Your task to perform on an android device: Go to Google Image 0: 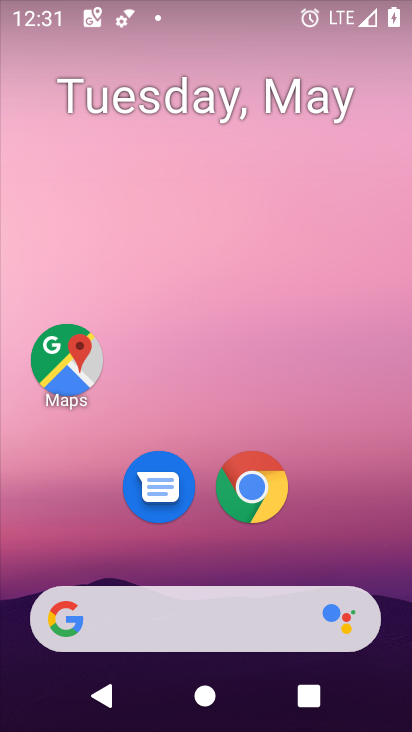
Step 0: press home button
Your task to perform on an android device: Go to Google Image 1: 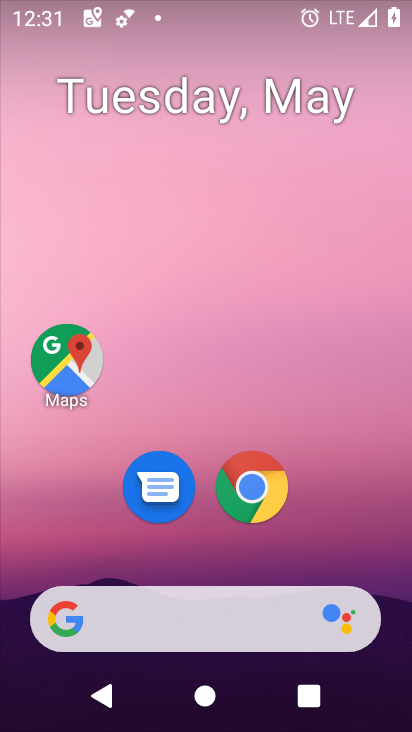
Step 1: click (58, 622)
Your task to perform on an android device: Go to Google Image 2: 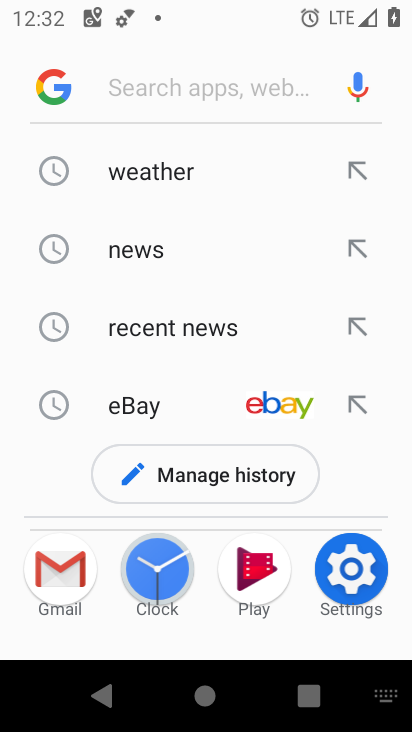
Step 2: click (47, 81)
Your task to perform on an android device: Go to Google Image 3: 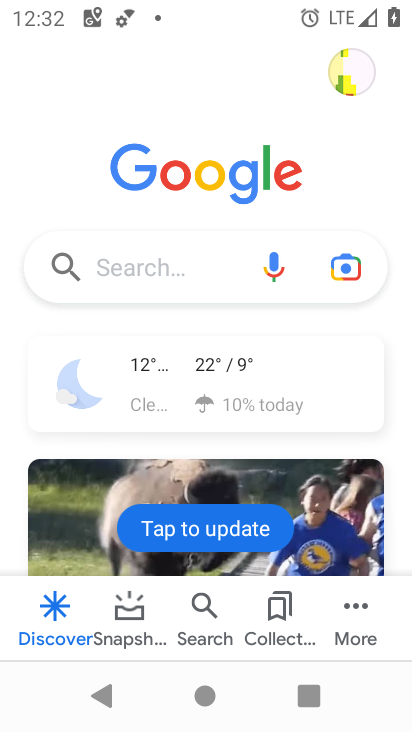
Step 3: task complete